Your task to perform on an android device: turn on airplane mode Image 0: 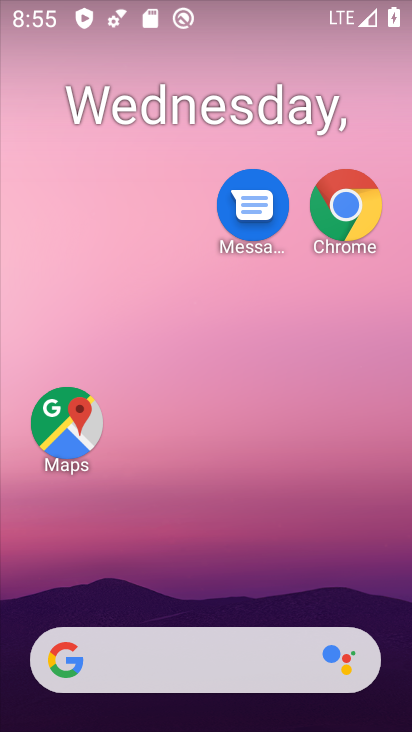
Step 0: drag from (213, 548) to (17, 119)
Your task to perform on an android device: turn on airplane mode Image 1: 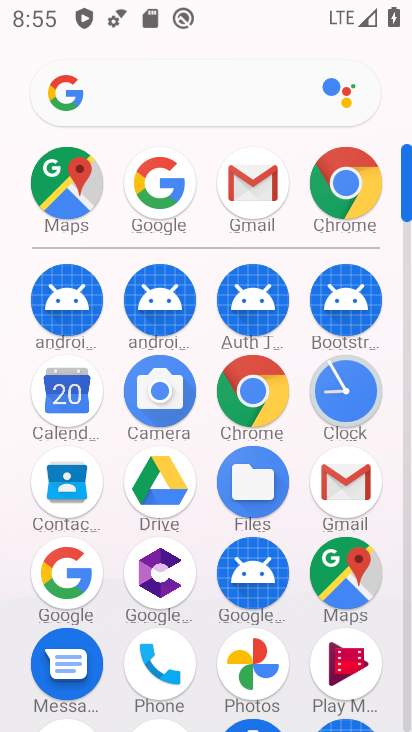
Step 1: drag from (193, 602) to (232, 124)
Your task to perform on an android device: turn on airplane mode Image 2: 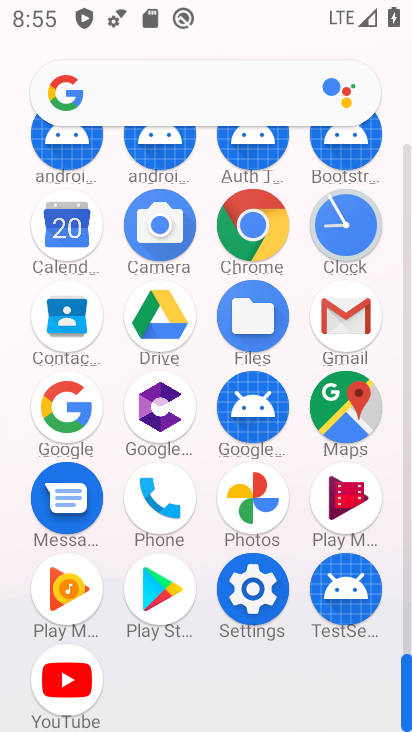
Step 2: click (250, 580)
Your task to perform on an android device: turn on airplane mode Image 3: 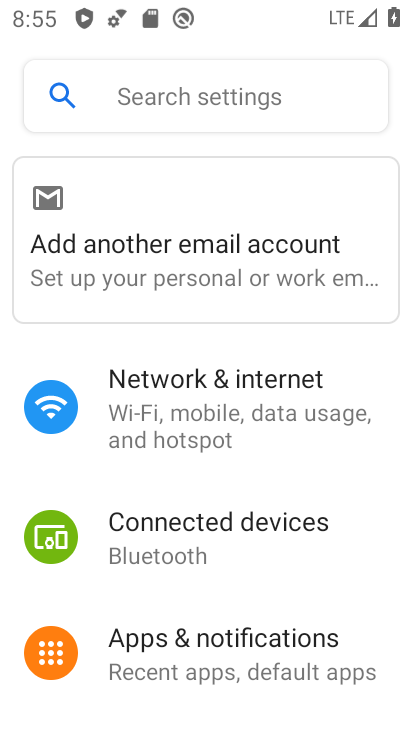
Step 3: click (208, 401)
Your task to perform on an android device: turn on airplane mode Image 4: 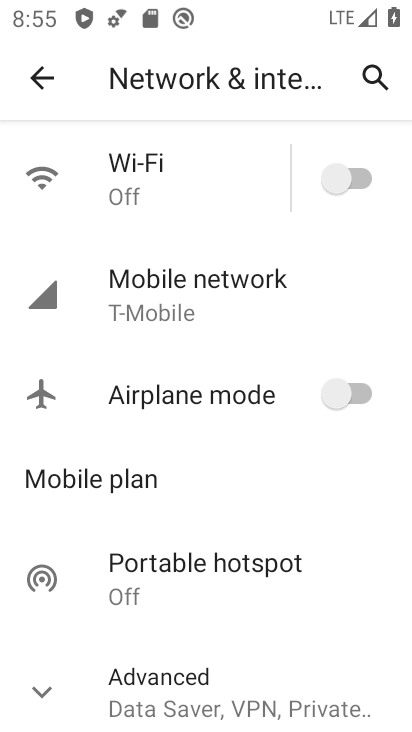
Step 4: click (197, 389)
Your task to perform on an android device: turn on airplane mode Image 5: 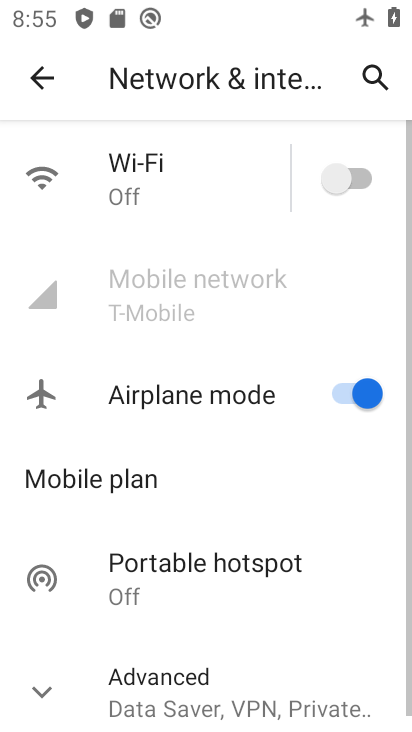
Step 5: task complete